Your task to perform on an android device: turn pop-ups on in chrome Image 0: 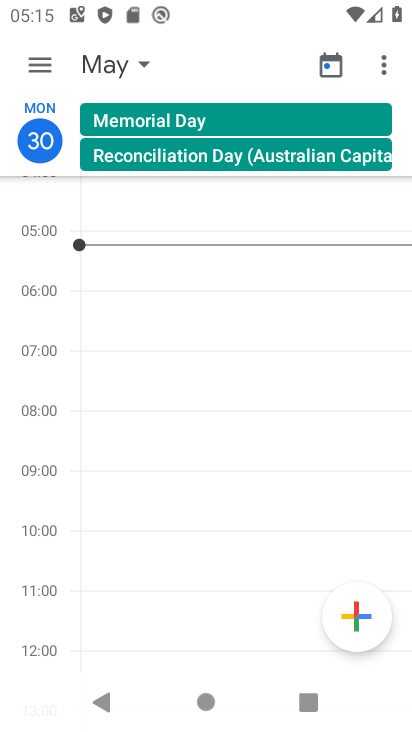
Step 0: press home button
Your task to perform on an android device: turn pop-ups on in chrome Image 1: 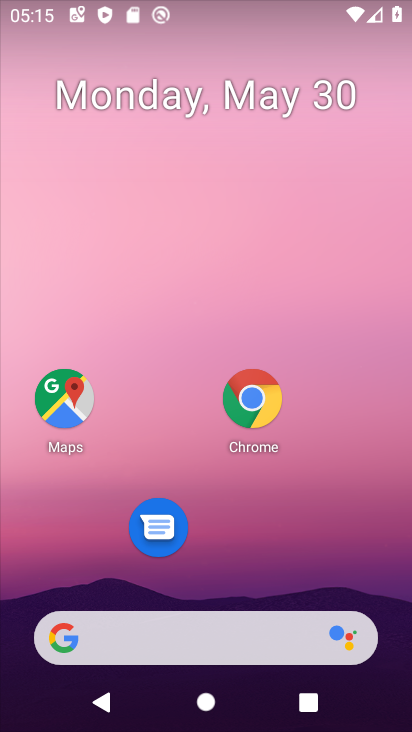
Step 1: click (253, 399)
Your task to perform on an android device: turn pop-ups on in chrome Image 2: 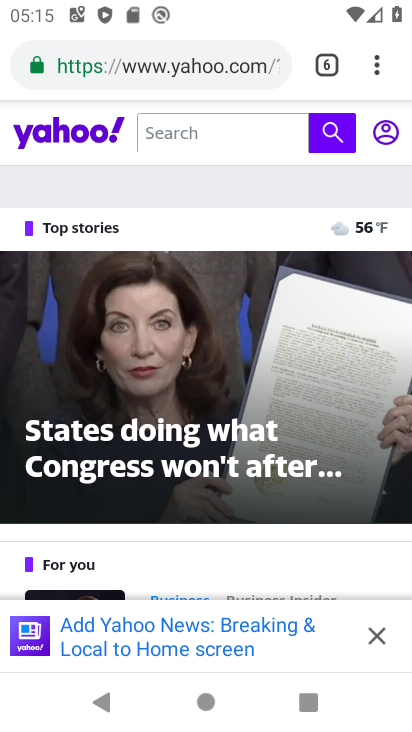
Step 2: click (379, 73)
Your task to perform on an android device: turn pop-ups on in chrome Image 3: 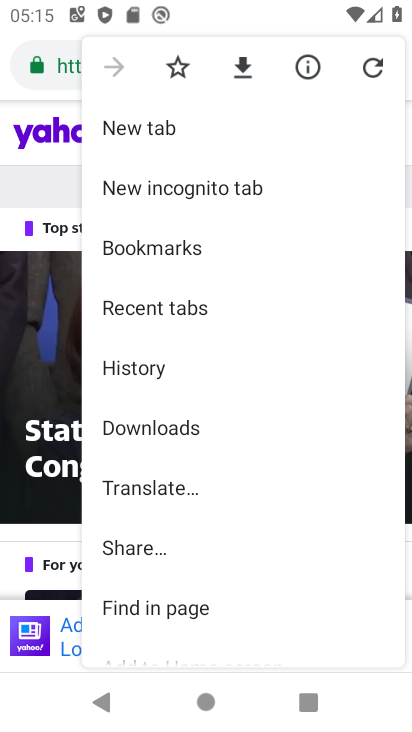
Step 3: drag from (139, 627) to (181, 165)
Your task to perform on an android device: turn pop-ups on in chrome Image 4: 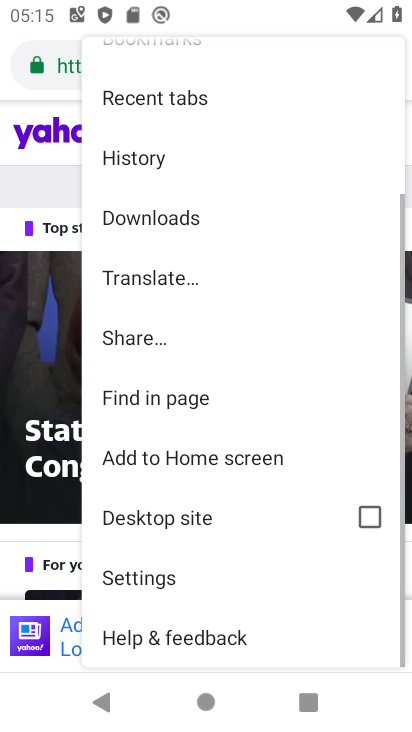
Step 4: click (137, 575)
Your task to perform on an android device: turn pop-ups on in chrome Image 5: 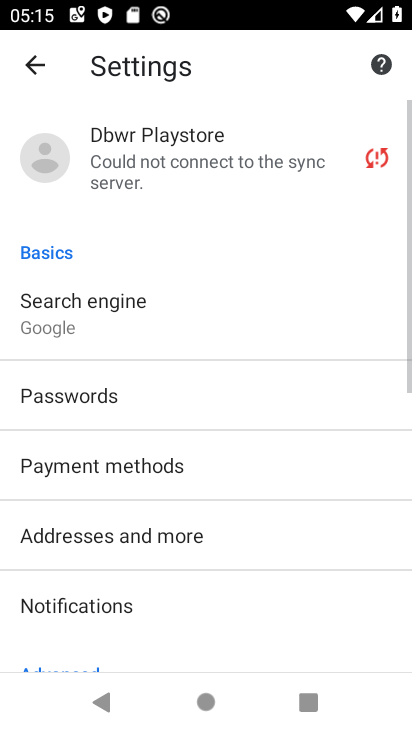
Step 5: drag from (150, 661) to (160, 393)
Your task to perform on an android device: turn pop-ups on in chrome Image 6: 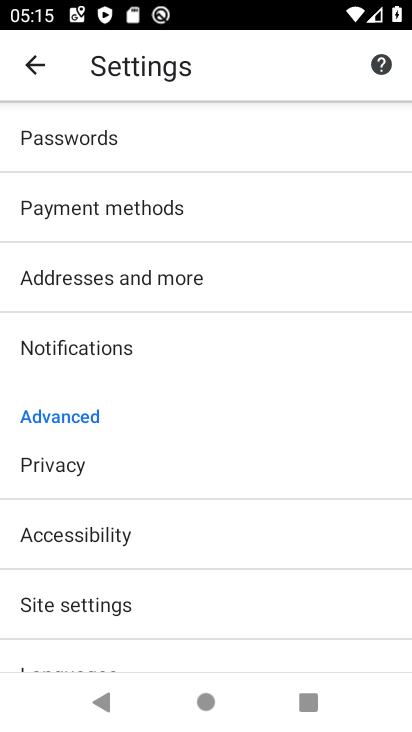
Step 6: click (80, 601)
Your task to perform on an android device: turn pop-ups on in chrome Image 7: 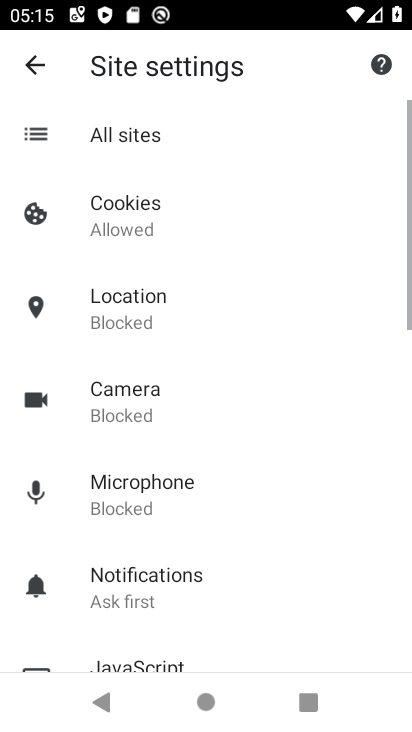
Step 7: drag from (143, 655) to (149, 437)
Your task to perform on an android device: turn pop-ups on in chrome Image 8: 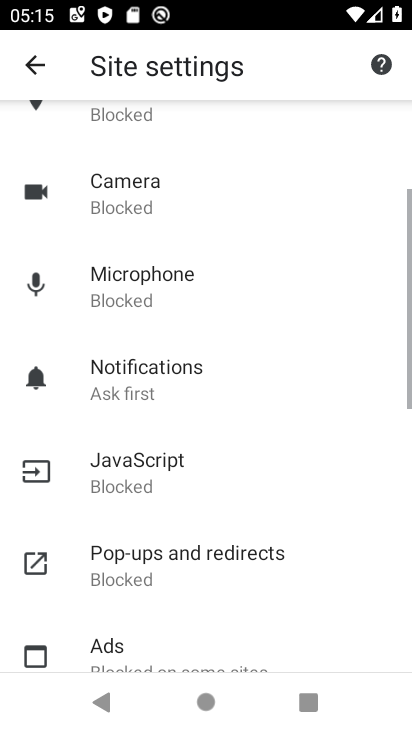
Step 8: click (167, 554)
Your task to perform on an android device: turn pop-ups on in chrome Image 9: 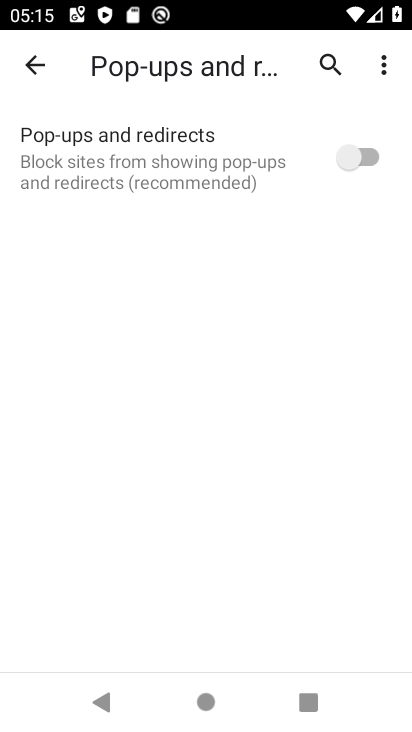
Step 9: click (366, 153)
Your task to perform on an android device: turn pop-ups on in chrome Image 10: 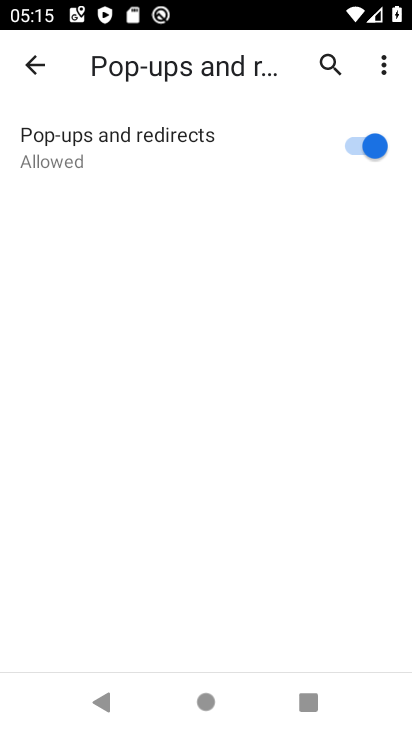
Step 10: task complete